Your task to perform on an android device: Open ESPN.com Image 0: 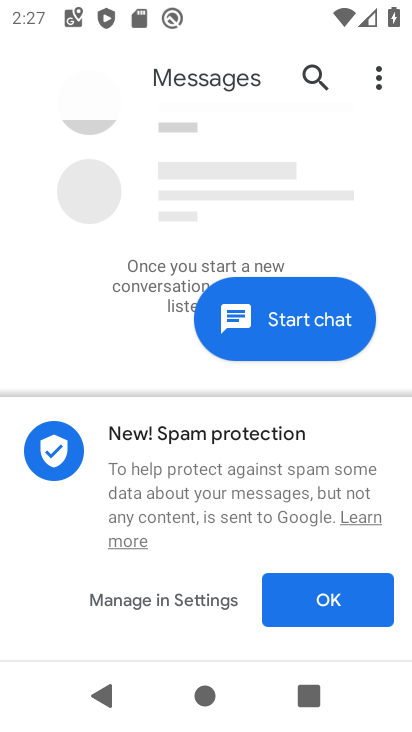
Step 0: press home button
Your task to perform on an android device: Open ESPN.com Image 1: 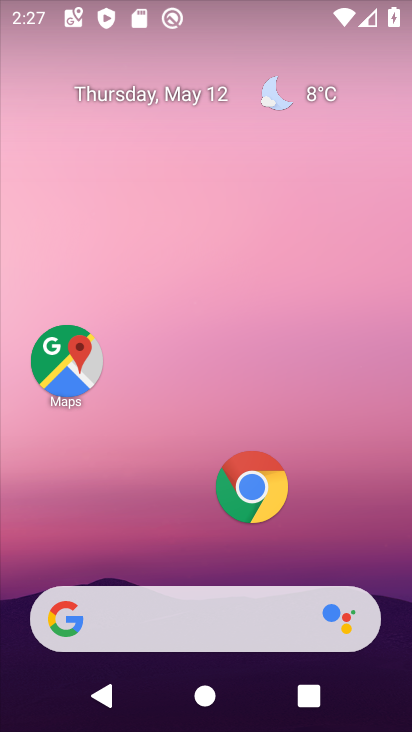
Step 1: click (132, 632)
Your task to perform on an android device: Open ESPN.com Image 2: 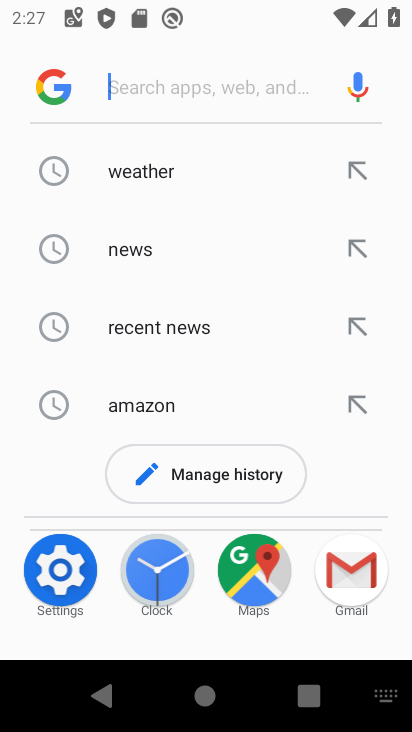
Step 2: type "ESPN.com"
Your task to perform on an android device: Open ESPN.com Image 3: 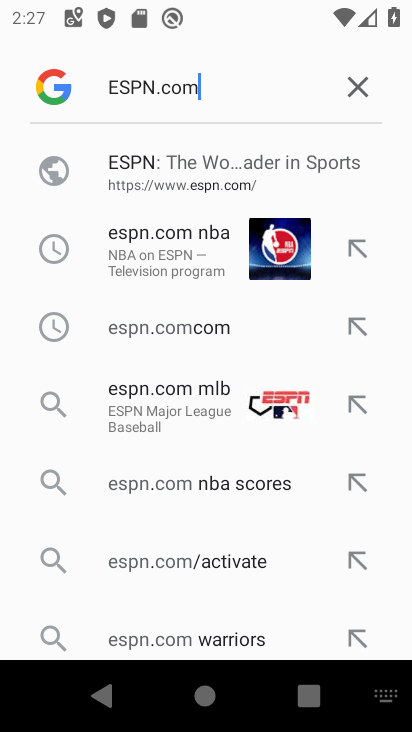
Step 3: click (187, 167)
Your task to perform on an android device: Open ESPN.com Image 4: 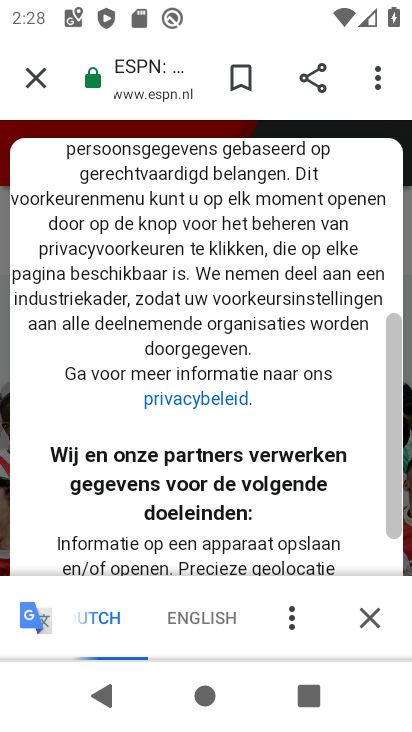
Step 4: task complete